Your task to perform on an android device: Toggle the flashlight Image 0: 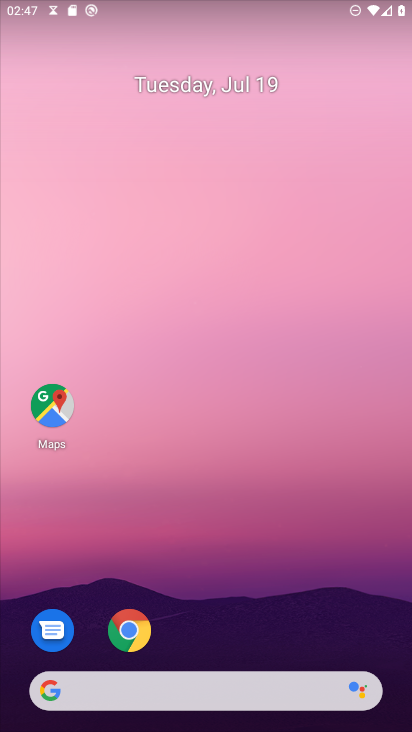
Step 0: press home button
Your task to perform on an android device: Toggle the flashlight Image 1: 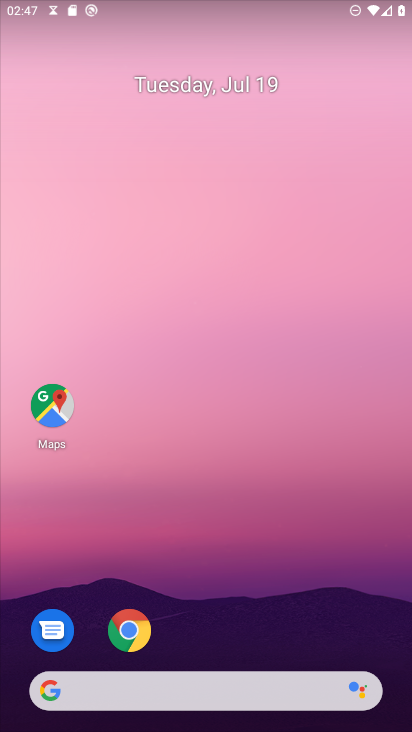
Step 1: task complete